Your task to perform on an android device: empty trash in the gmail app Image 0: 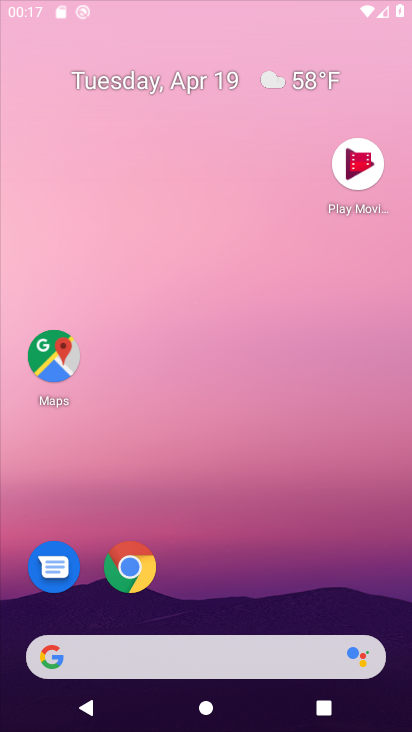
Step 0: click (312, 197)
Your task to perform on an android device: empty trash in the gmail app Image 1: 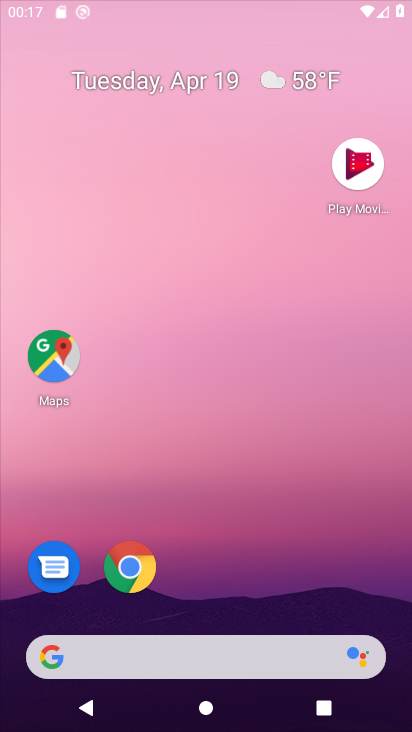
Step 1: drag from (233, 600) to (289, 0)
Your task to perform on an android device: empty trash in the gmail app Image 2: 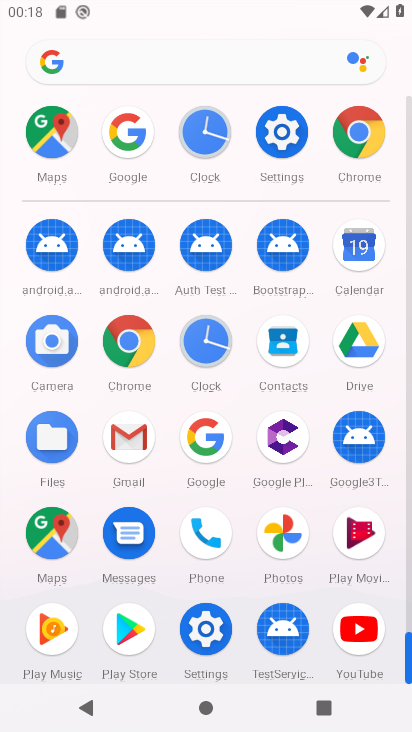
Step 2: click (132, 437)
Your task to perform on an android device: empty trash in the gmail app Image 3: 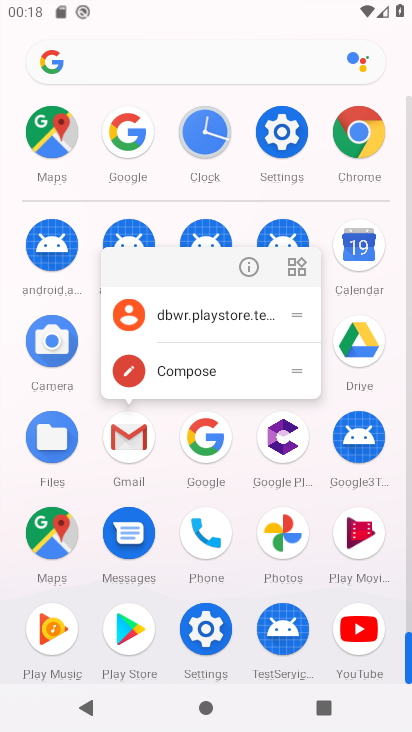
Step 3: click (244, 262)
Your task to perform on an android device: empty trash in the gmail app Image 4: 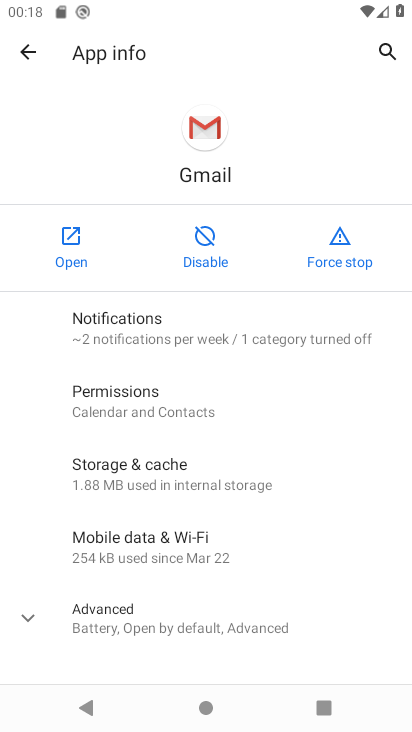
Step 4: click (95, 245)
Your task to perform on an android device: empty trash in the gmail app Image 5: 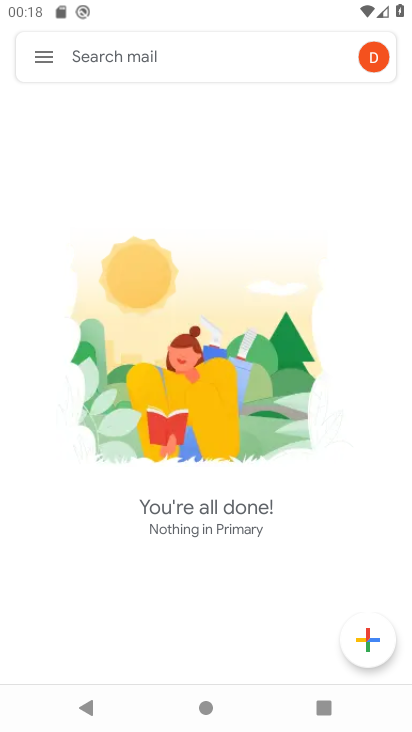
Step 5: click (27, 49)
Your task to perform on an android device: empty trash in the gmail app Image 6: 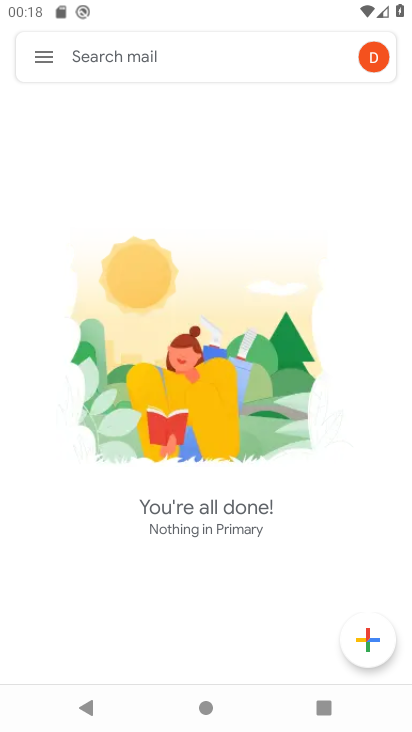
Step 6: click (57, 52)
Your task to perform on an android device: empty trash in the gmail app Image 7: 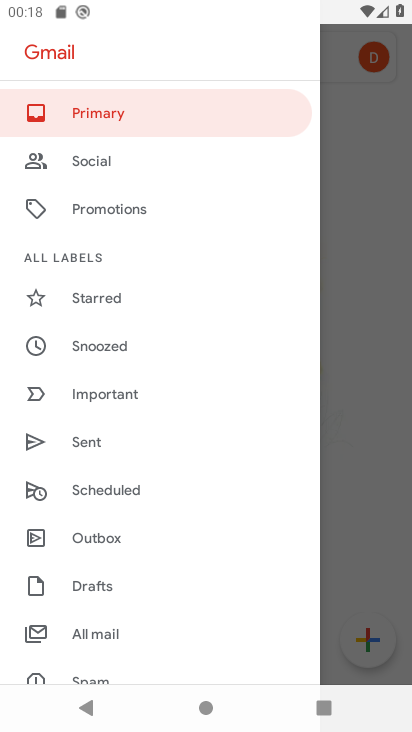
Step 7: drag from (130, 639) to (211, 156)
Your task to perform on an android device: empty trash in the gmail app Image 8: 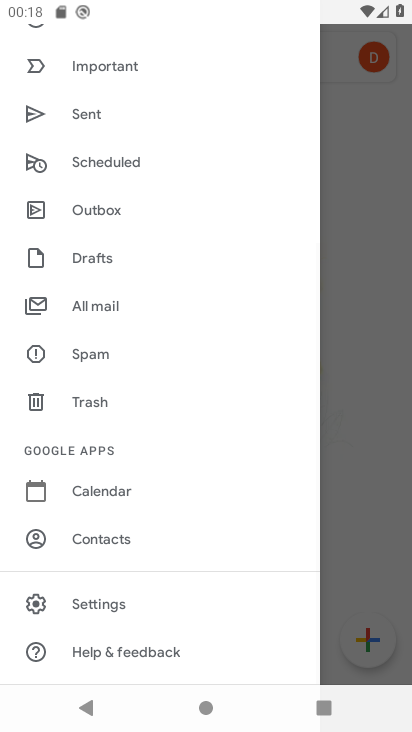
Step 8: click (104, 402)
Your task to perform on an android device: empty trash in the gmail app Image 9: 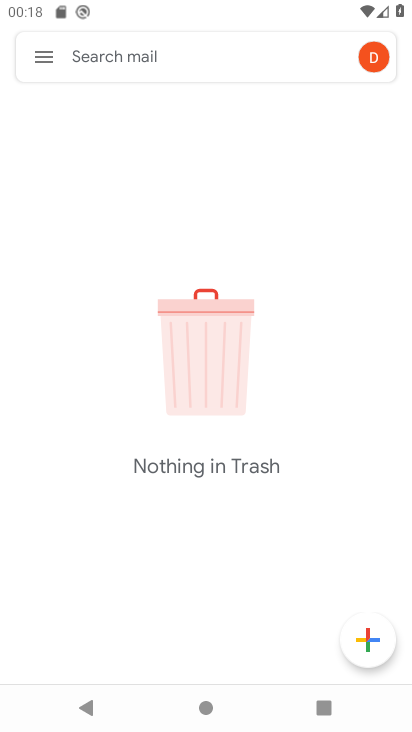
Step 9: task complete